Your task to perform on an android device: change text size in settings app Image 0: 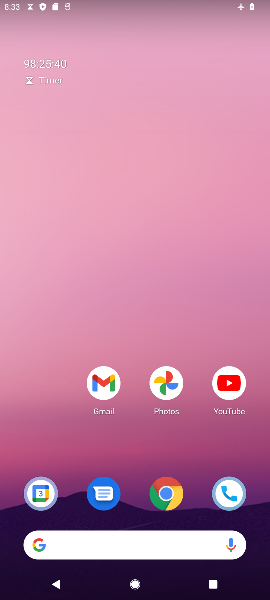
Step 0: drag from (126, 508) to (142, 163)
Your task to perform on an android device: change text size in settings app Image 1: 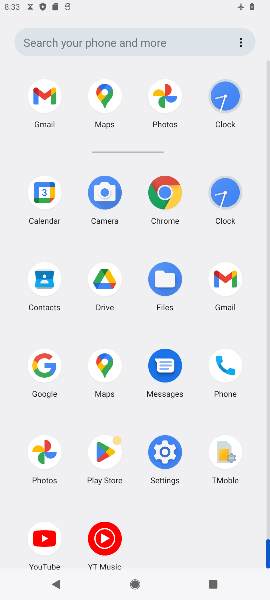
Step 1: click (156, 445)
Your task to perform on an android device: change text size in settings app Image 2: 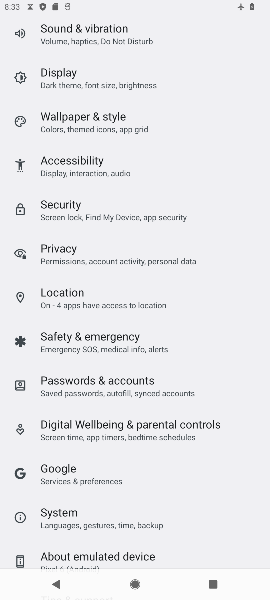
Step 2: drag from (94, 530) to (102, 376)
Your task to perform on an android device: change text size in settings app Image 3: 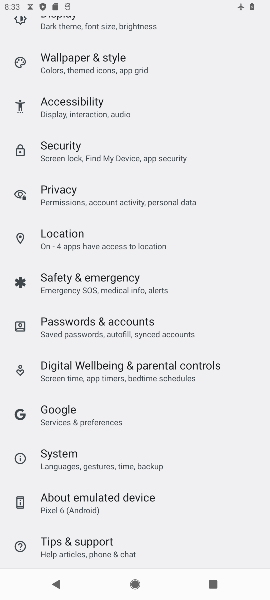
Step 3: click (81, 93)
Your task to perform on an android device: change text size in settings app Image 4: 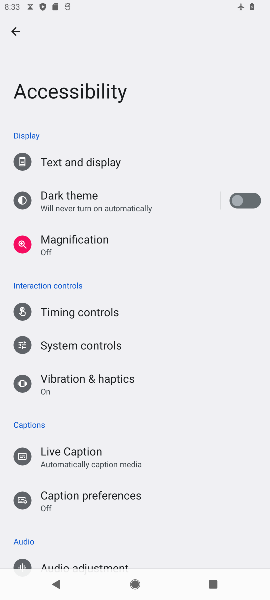
Step 4: click (84, 160)
Your task to perform on an android device: change text size in settings app Image 5: 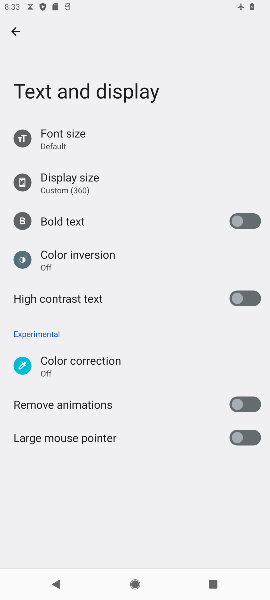
Step 5: click (82, 147)
Your task to perform on an android device: change text size in settings app Image 6: 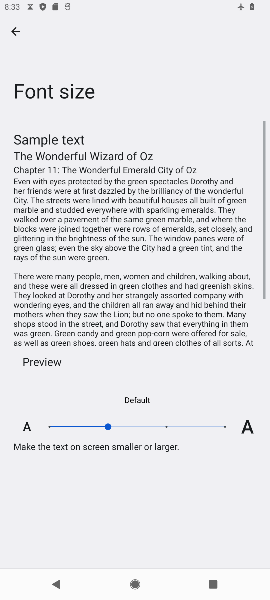
Step 6: click (169, 424)
Your task to perform on an android device: change text size in settings app Image 7: 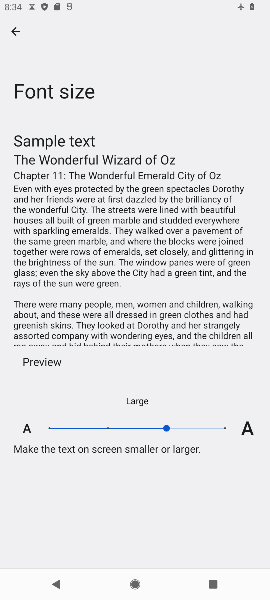
Step 7: task complete